Your task to perform on an android device: clear all cookies in the chrome app Image 0: 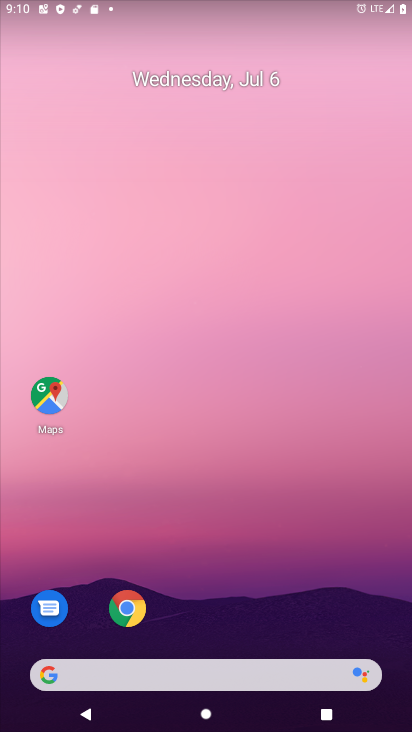
Step 0: drag from (379, 647) to (229, 18)
Your task to perform on an android device: clear all cookies in the chrome app Image 1: 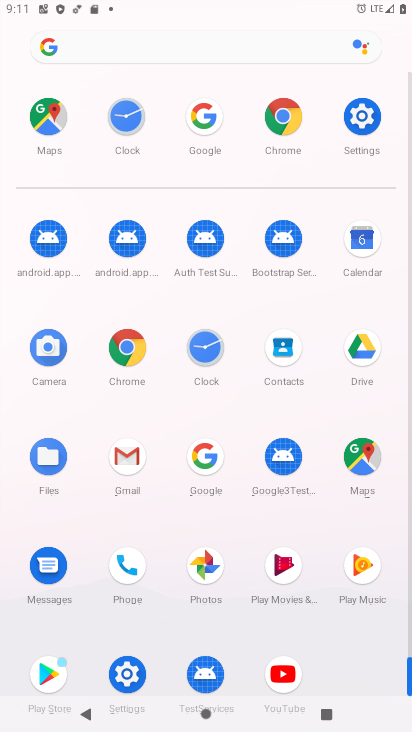
Step 1: click (301, 116)
Your task to perform on an android device: clear all cookies in the chrome app Image 2: 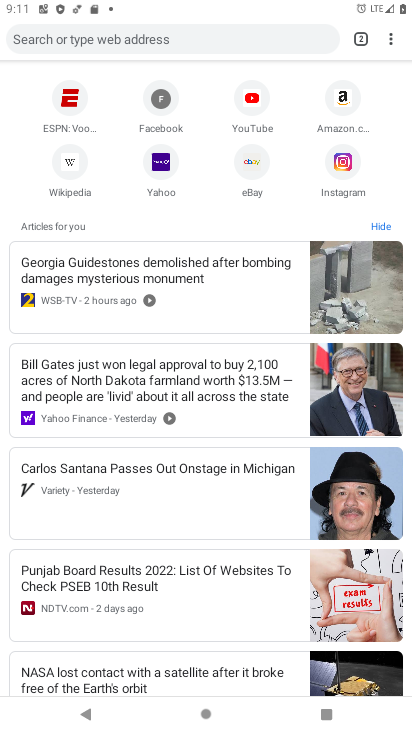
Step 2: click (392, 35)
Your task to perform on an android device: clear all cookies in the chrome app Image 3: 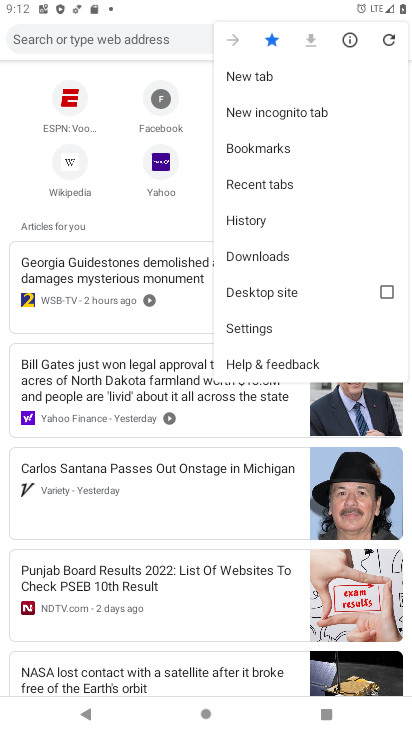
Step 3: click (260, 225)
Your task to perform on an android device: clear all cookies in the chrome app Image 4: 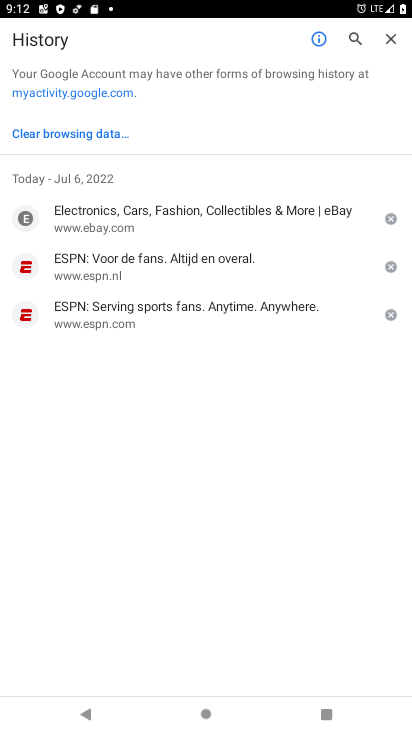
Step 4: click (34, 135)
Your task to perform on an android device: clear all cookies in the chrome app Image 5: 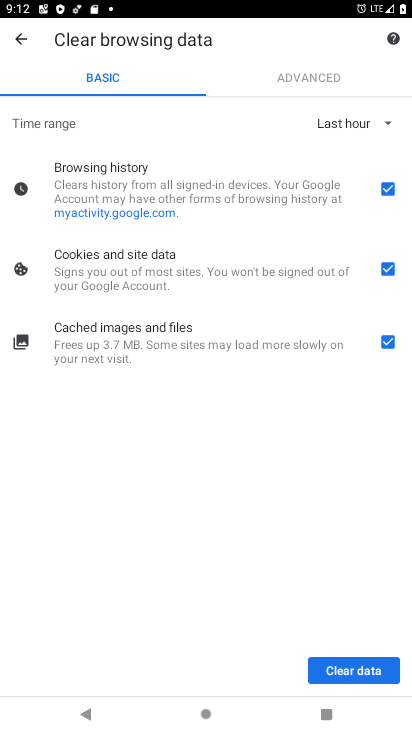
Step 5: click (355, 669)
Your task to perform on an android device: clear all cookies in the chrome app Image 6: 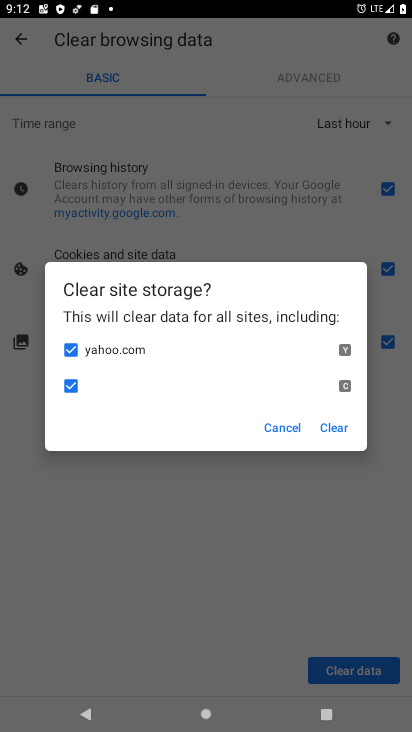
Step 6: click (326, 435)
Your task to perform on an android device: clear all cookies in the chrome app Image 7: 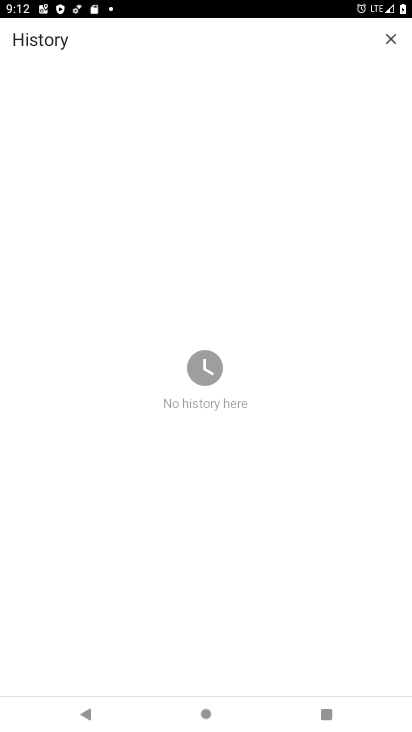
Step 7: task complete